Your task to perform on an android device: toggle location history Image 0: 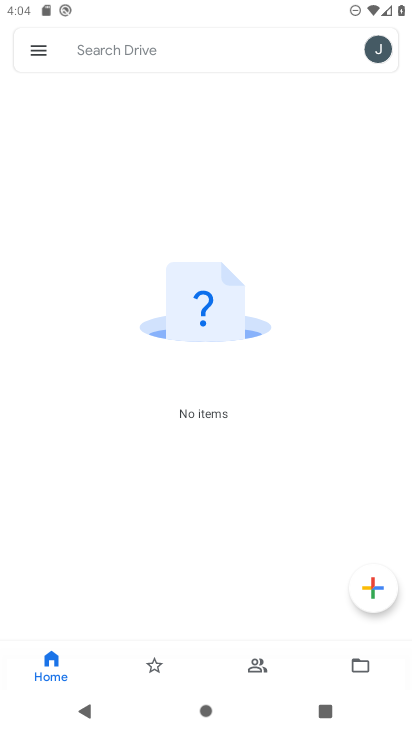
Step 0: press home button
Your task to perform on an android device: toggle location history Image 1: 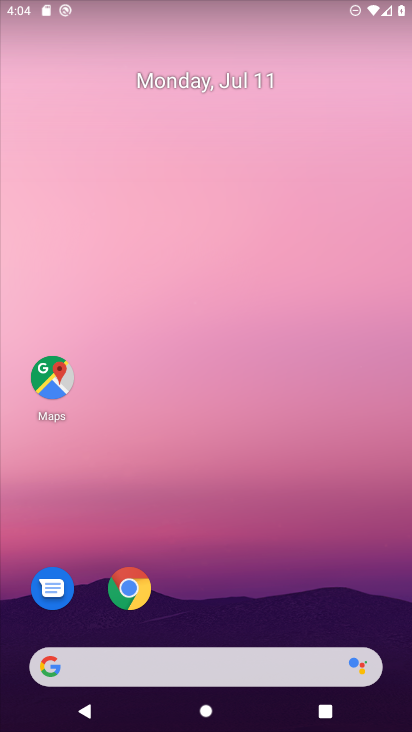
Step 1: drag from (251, 533) to (253, 158)
Your task to perform on an android device: toggle location history Image 2: 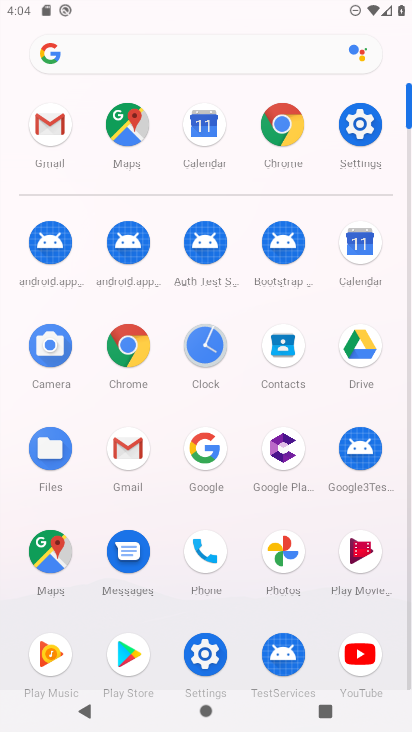
Step 2: click (355, 123)
Your task to perform on an android device: toggle location history Image 3: 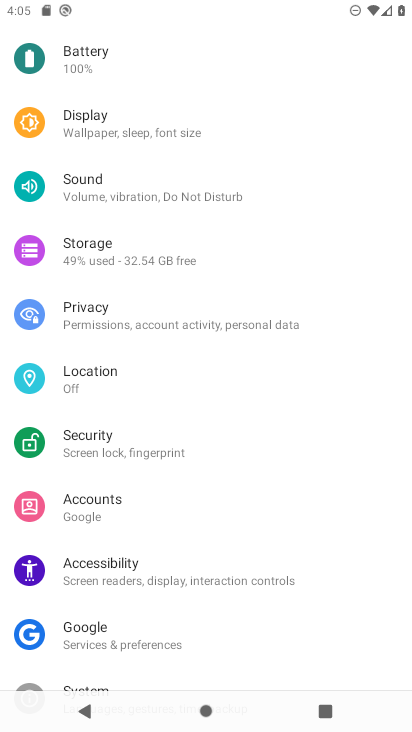
Step 3: click (134, 387)
Your task to perform on an android device: toggle location history Image 4: 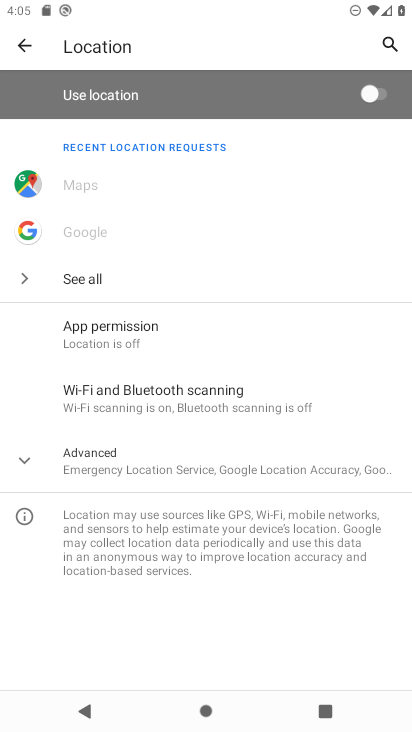
Step 4: click (36, 463)
Your task to perform on an android device: toggle location history Image 5: 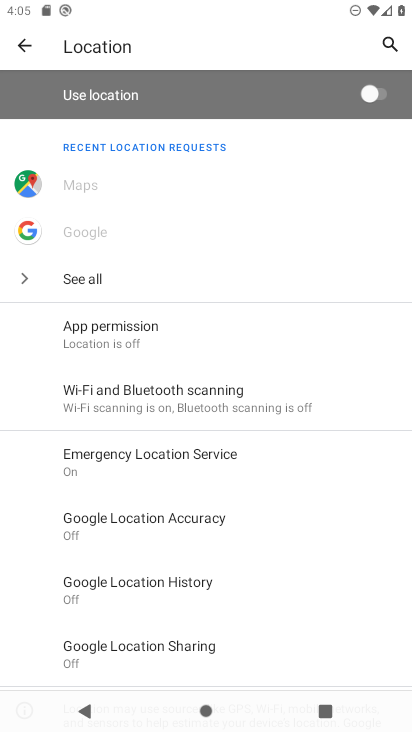
Step 5: click (132, 588)
Your task to perform on an android device: toggle location history Image 6: 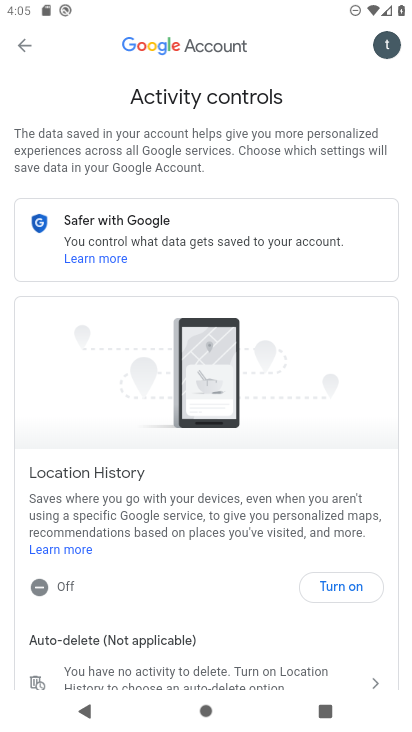
Step 6: click (356, 583)
Your task to perform on an android device: toggle location history Image 7: 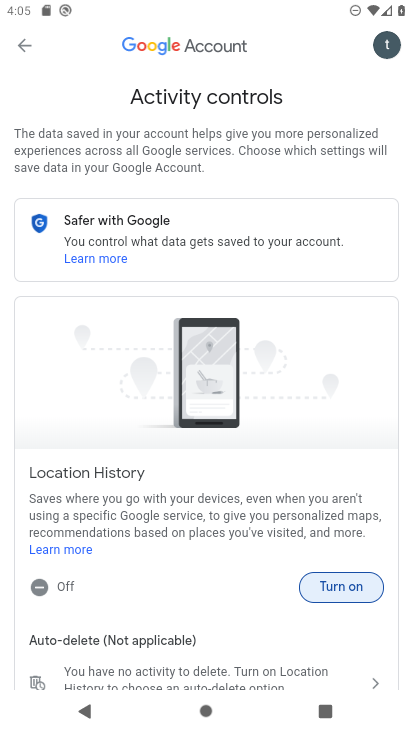
Step 7: click (363, 592)
Your task to perform on an android device: toggle location history Image 8: 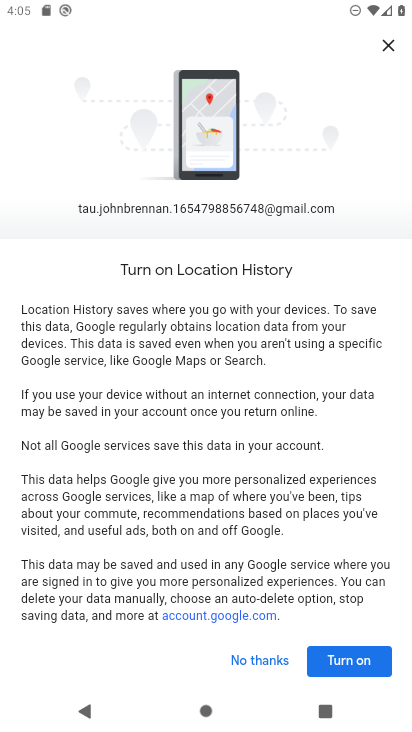
Step 8: click (357, 666)
Your task to perform on an android device: toggle location history Image 9: 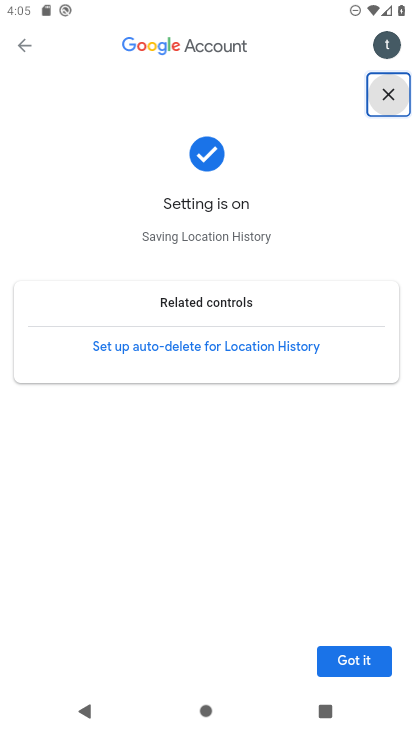
Step 9: click (357, 666)
Your task to perform on an android device: toggle location history Image 10: 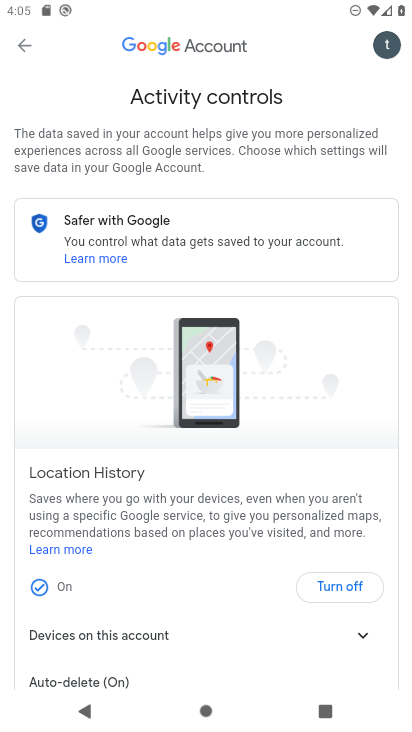
Step 10: task complete